Your task to perform on an android device: Open calendar and show me the first week of next month Image 0: 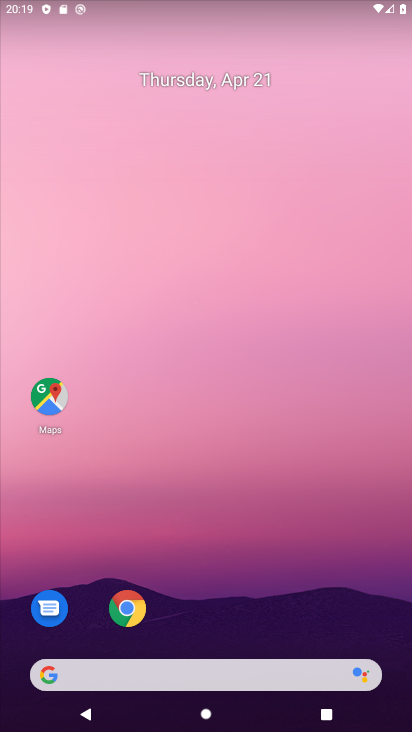
Step 0: click (207, 84)
Your task to perform on an android device: Open calendar and show me the first week of next month Image 1: 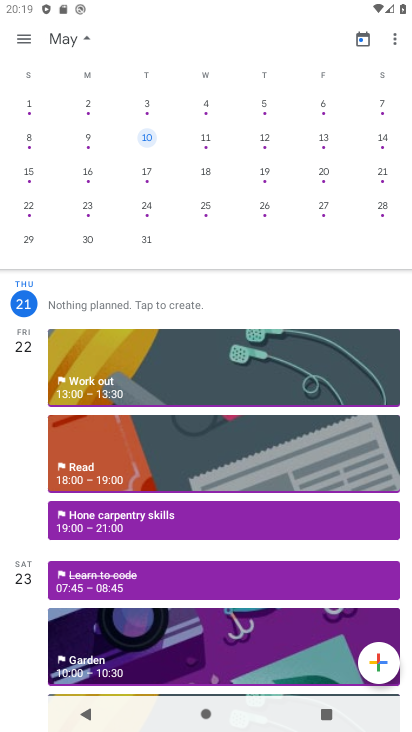
Step 1: click (106, 106)
Your task to perform on an android device: Open calendar and show me the first week of next month Image 2: 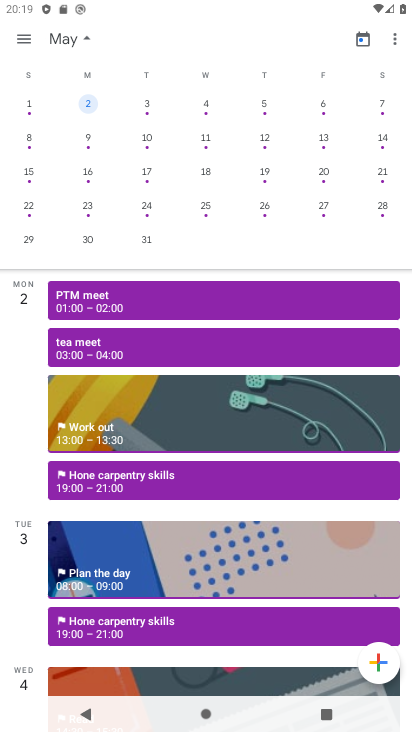
Step 2: task complete